Your task to perform on an android device: clear all cookies in the chrome app Image 0: 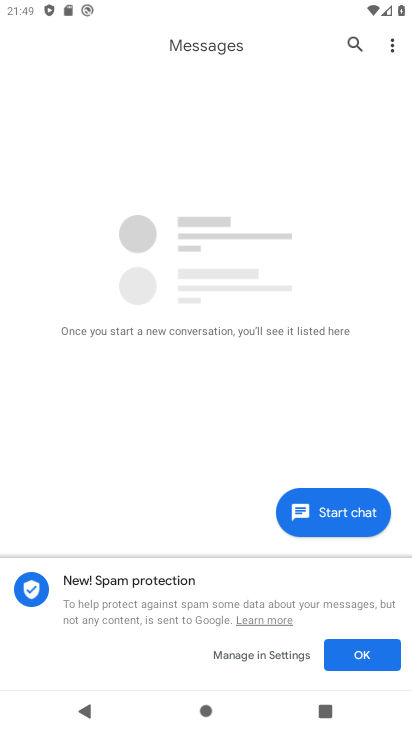
Step 0: press back button
Your task to perform on an android device: clear all cookies in the chrome app Image 1: 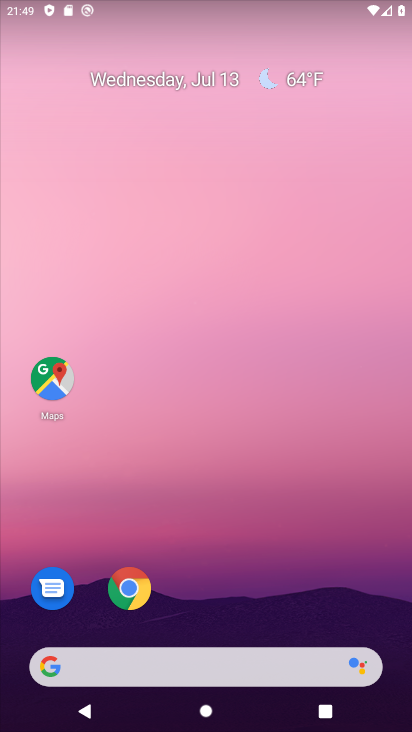
Step 1: click (123, 589)
Your task to perform on an android device: clear all cookies in the chrome app Image 2: 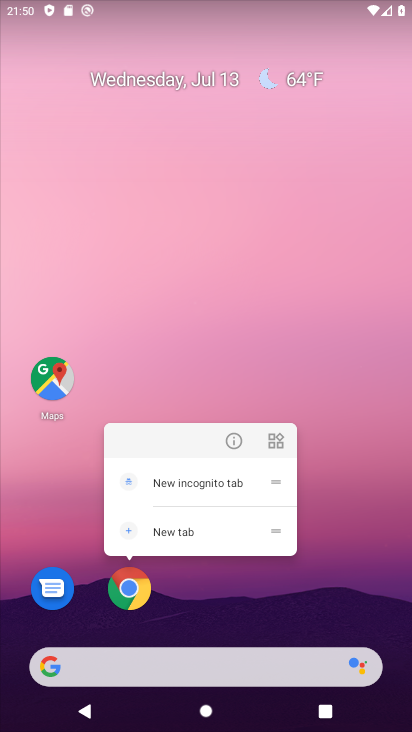
Step 2: click (131, 588)
Your task to perform on an android device: clear all cookies in the chrome app Image 3: 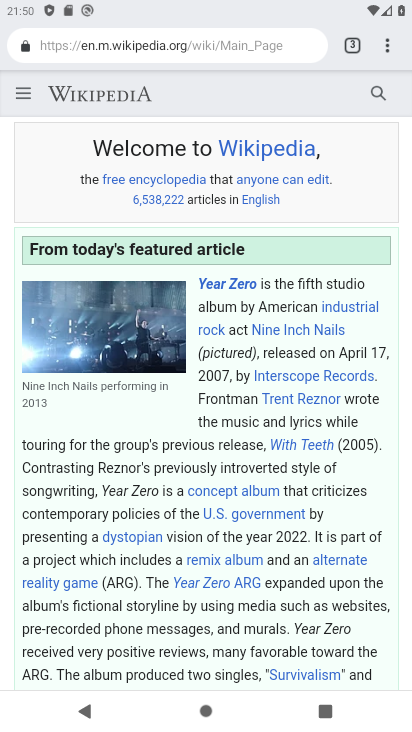
Step 3: drag from (384, 42) to (253, 250)
Your task to perform on an android device: clear all cookies in the chrome app Image 4: 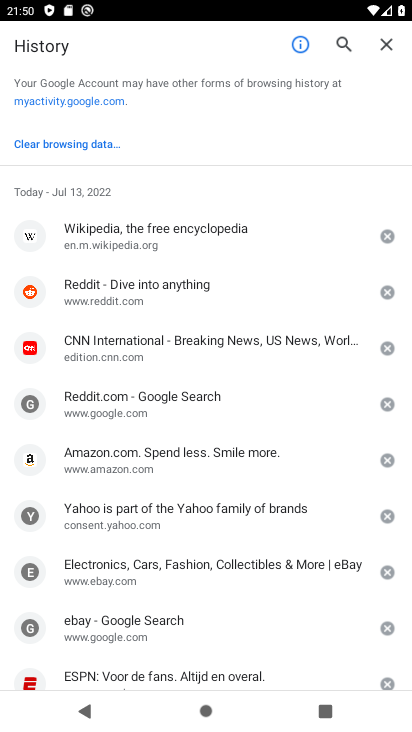
Step 4: click (52, 137)
Your task to perform on an android device: clear all cookies in the chrome app Image 5: 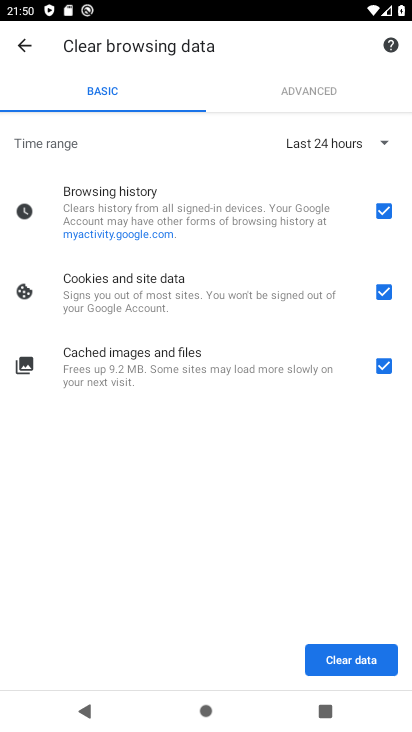
Step 5: click (389, 202)
Your task to perform on an android device: clear all cookies in the chrome app Image 6: 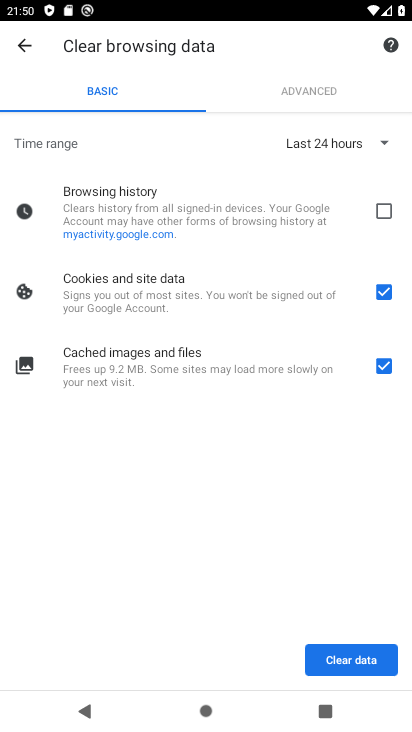
Step 6: click (379, 360)
Your task to perform on an android device: clear all cookies in the chrome app Image 7: 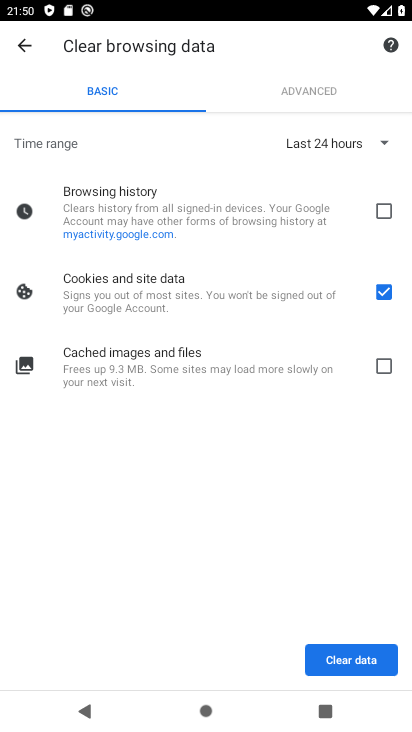
Step 7: click (337, 658)
Your task to perform on an android device: clear all cookies in the chrome app Image 8: 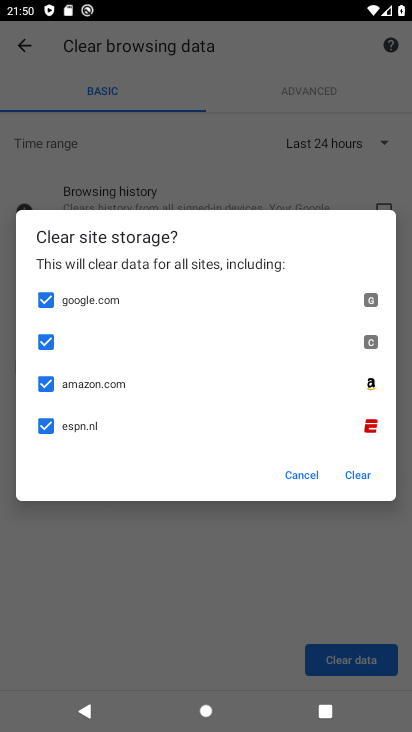
Step 8: click (365, 469)
Your task to perform on an android device: clear all cookies in the chrome app Image 9: 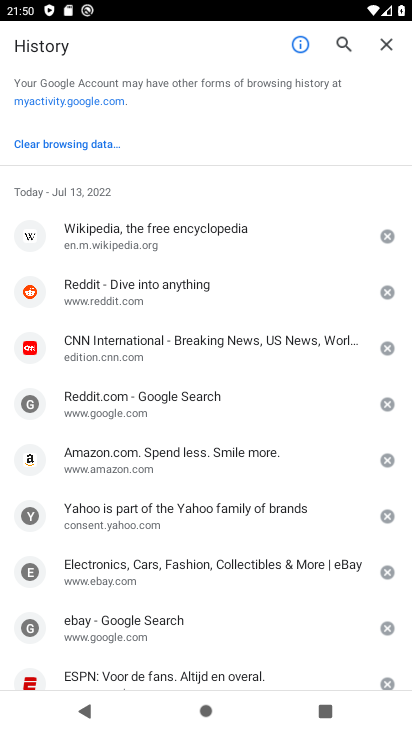
Step 9: task complete